Your task to perform on an android device: Go to network settings Image 0: 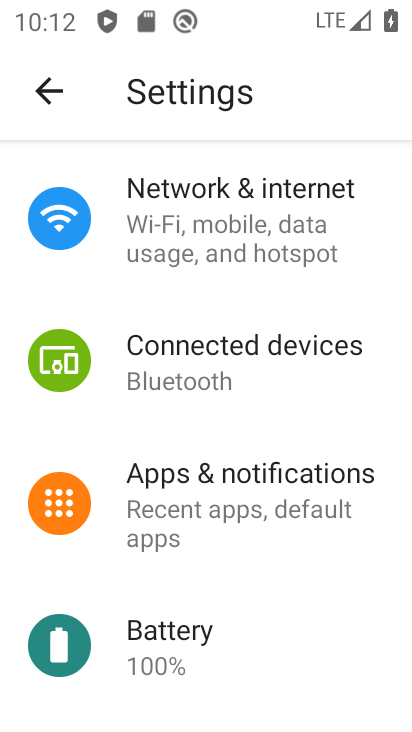
Step 0: click (315, 234)
Your task to perform on an android device: Go to network settings Image 1: 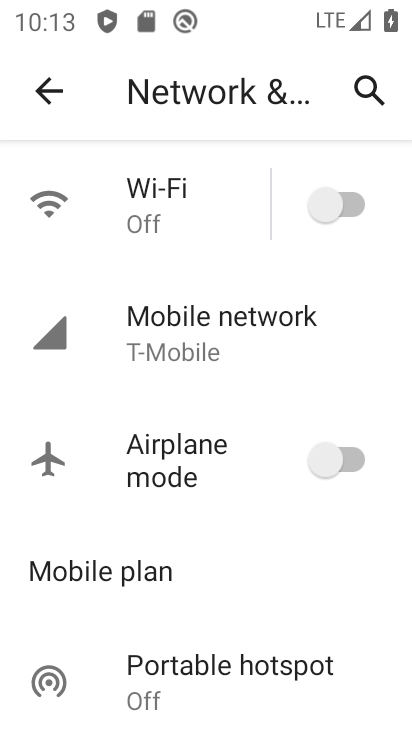
Step 1: task complete